Your task to perform on an android device: check android version Image 0: 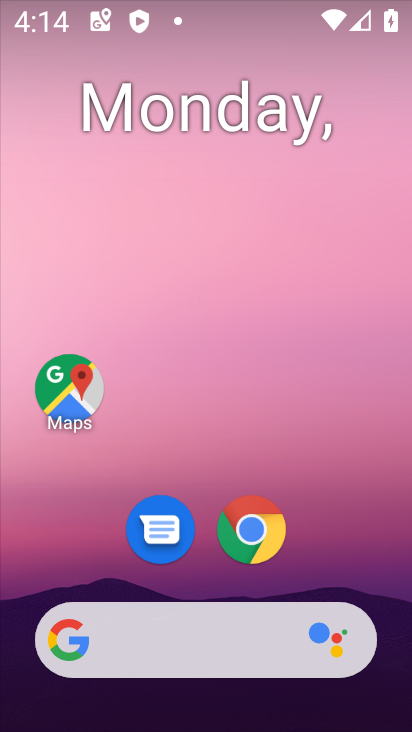
Step 0: drag from (224, 695) to (223, 88)
Your task to perform on an android device: check android version Image 1: 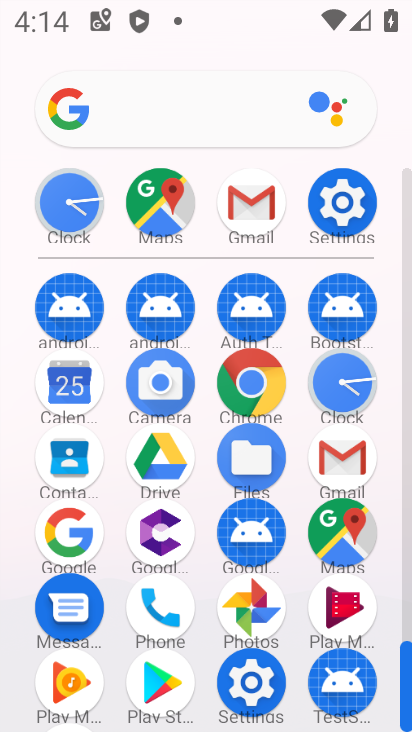
Step 1: click (333, 201)
Your task to perform on an android device: check android version Image 2: 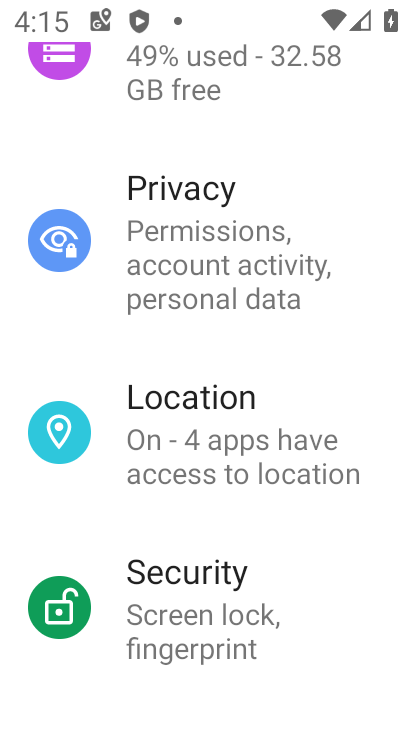
Step 2: drag from (182, 688) to (175, 338)
Your task to perform on an android device: check android version Image 3: 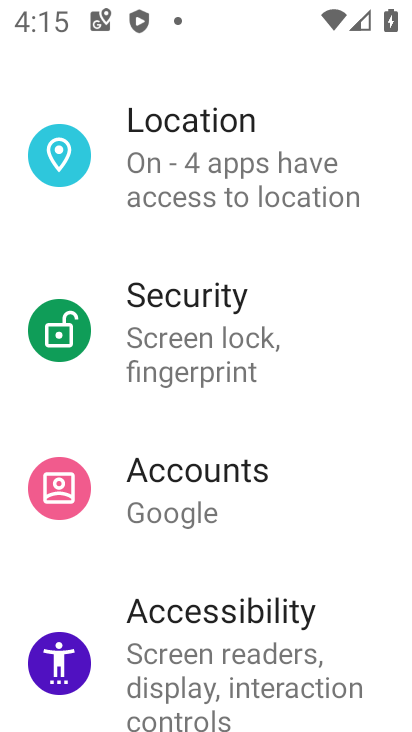
Step 3: drag from (177, 680) to (207, 234)
Your task to perform on an android device: check android version Image 4: 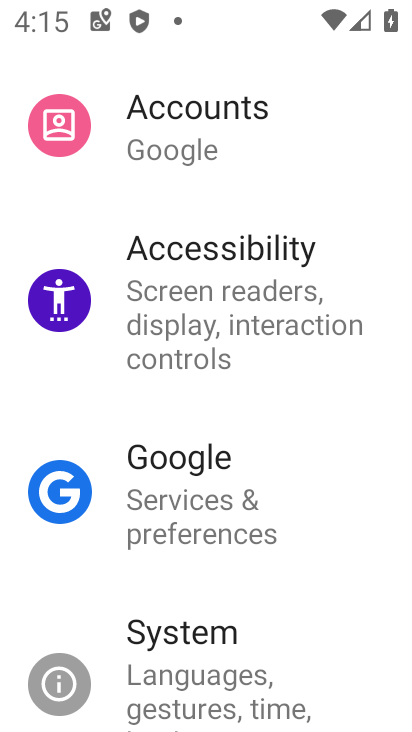
Step 4: drag from (204, 632) to (207, 347)
Your task to perform on an android device: check android version Image 5: 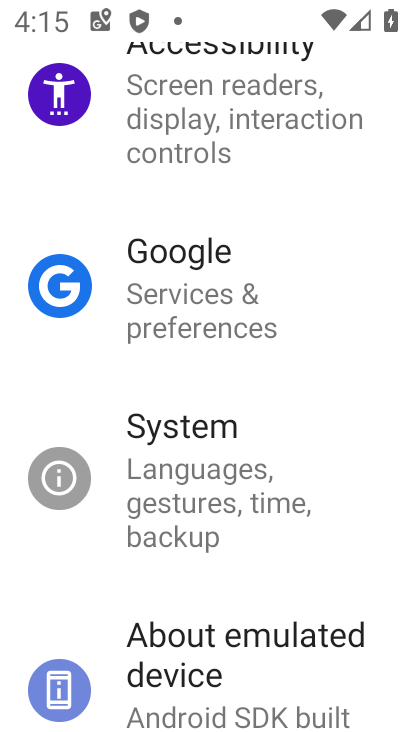
Step 5: drag from (199, 689) to (217, 175)
Your task to perform on an android device: check android version Image 6: 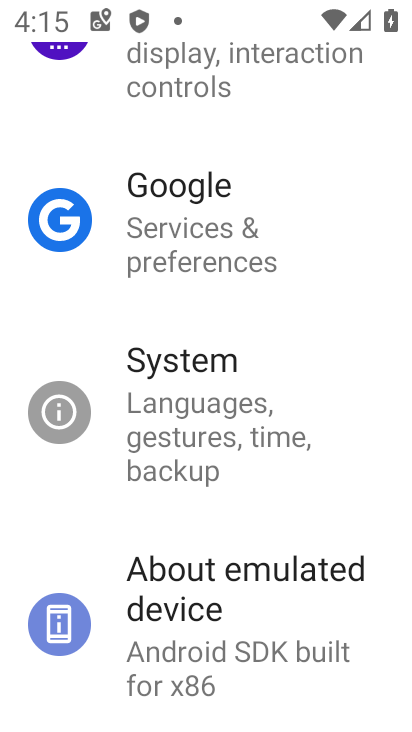
Step 6: drag from (204, 685) to (207, 276)
Your task to perform on an android device: check android version Image 7: 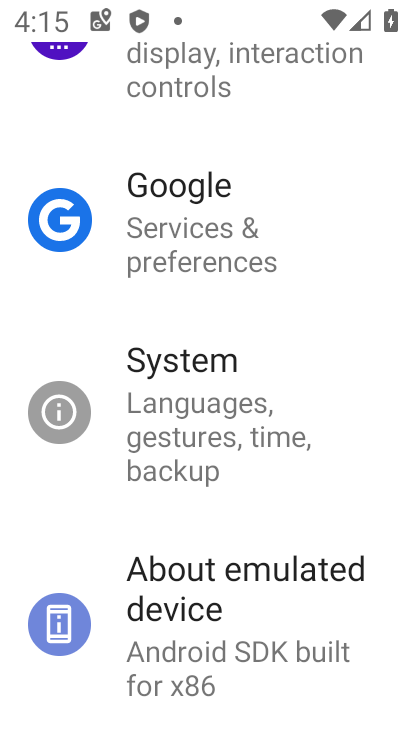
Step 7: click (151, 633)
Your task to perform on an android device: check android version Image 8: 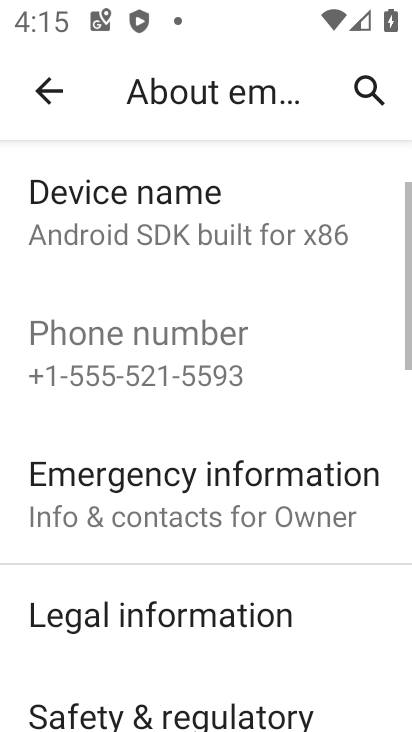
Step 8: drag from (231, 186) to (218, 256)
Your task to perform on an android device: check android version Image 9: 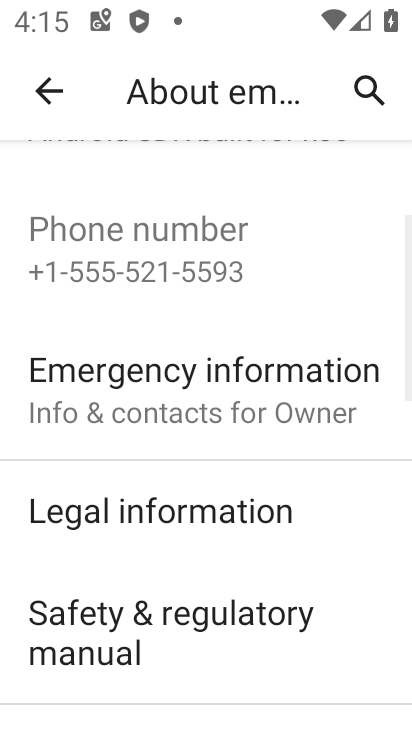
Step 9: drag from (182, 686) to (206, 261)
Your task to perform on an android device: check android version Image 10: 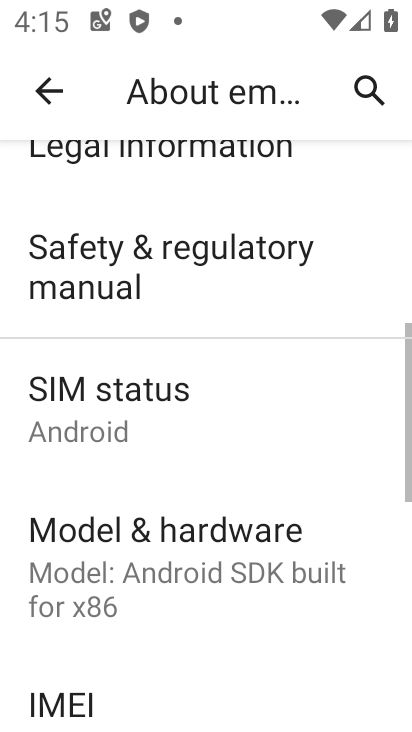
Step 10: drag from (160, 692) to (196, 282)
Your task to perform on an android device: check android version Image 11: 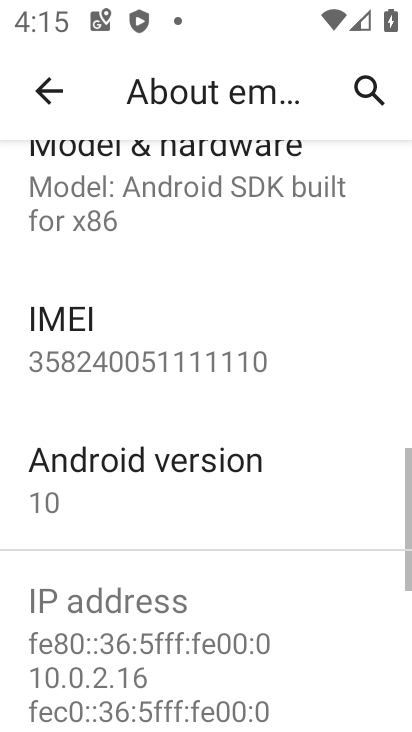
Step 11: click (108, 444)
Your task to perform on an android device: check android version Image 12: 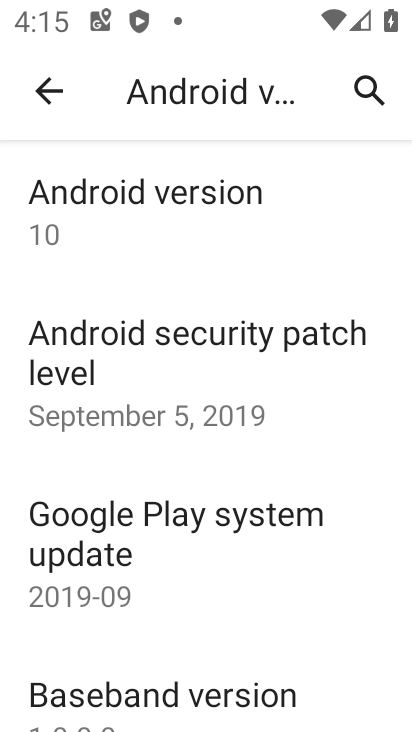
Step 12: task complete